Your task to perform on an android device: Open the stopwatch Image 0: 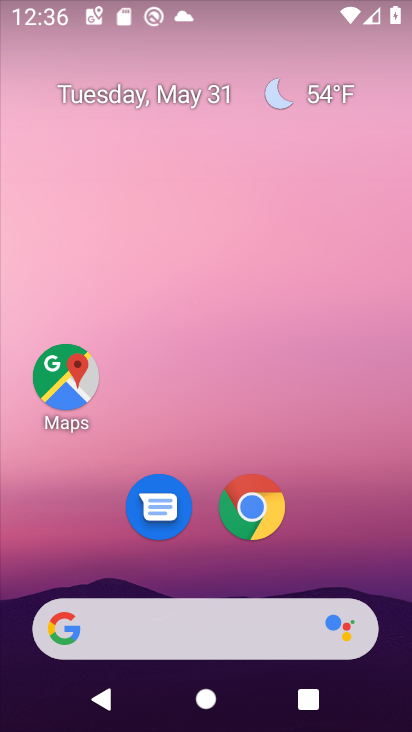
Step 0: drag from (247, 722) to (227, 407)
Your task to perform on an android device: Open the stopwatch Image 1: 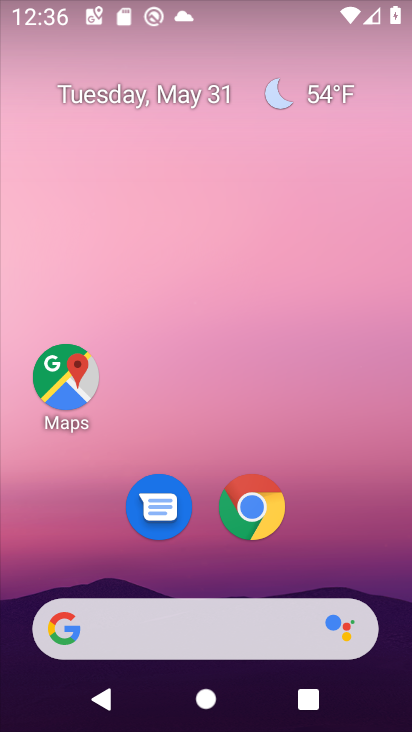
Step 1: drag from (269, 699) to (262, 294)
Your task to perform on an android device: Open the stopwatch Image 2: 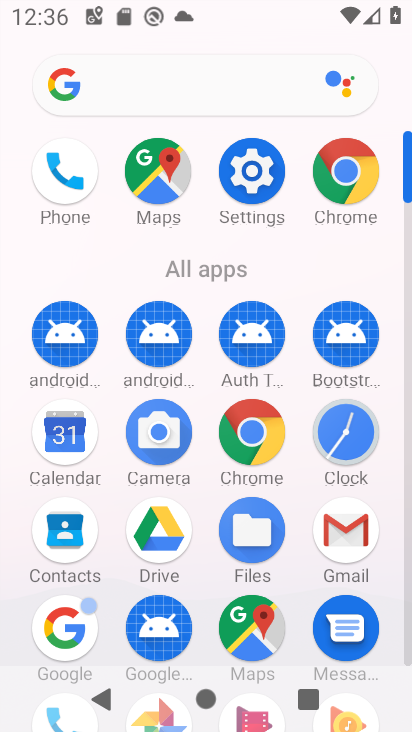
Step 2: click (342, 427)
Your task to perform on an android device: Open the stopwatch Image 3: 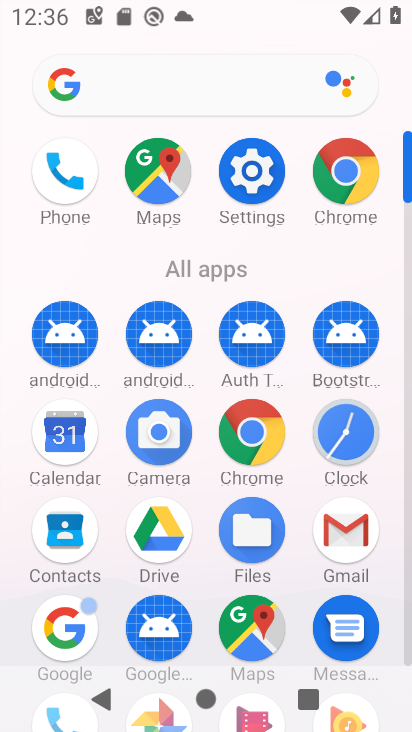
Step 3: click (344, 426)
Your task to perform on an android device: Open the stopwatch Image 4: 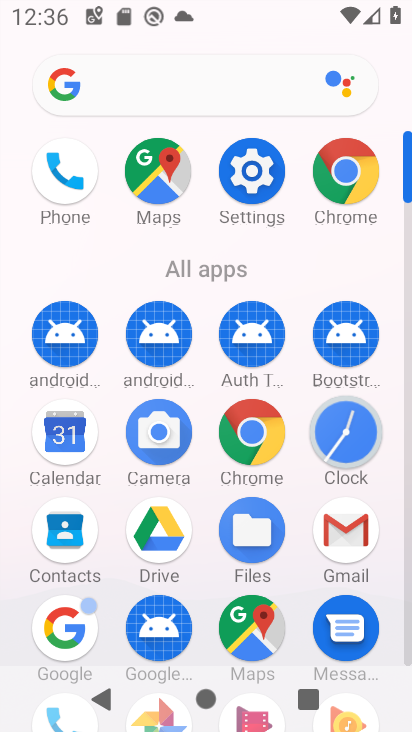
Step 4: click (344, 426)
Your task to perform on an android device: Open the stopwatch Image 5: 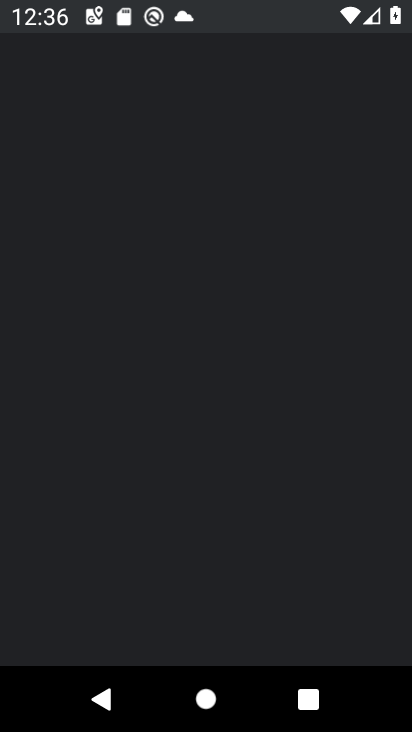
Step 5: click (333, 418)
Your task to perform on an android device: Open the stopwatch Image 6: 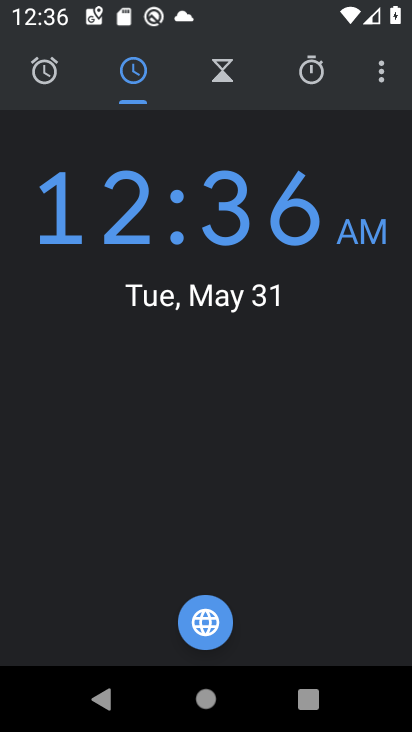
Step 6: click (311, 74)
Your task to perform on an android device: Open the stopwatch Image 7: 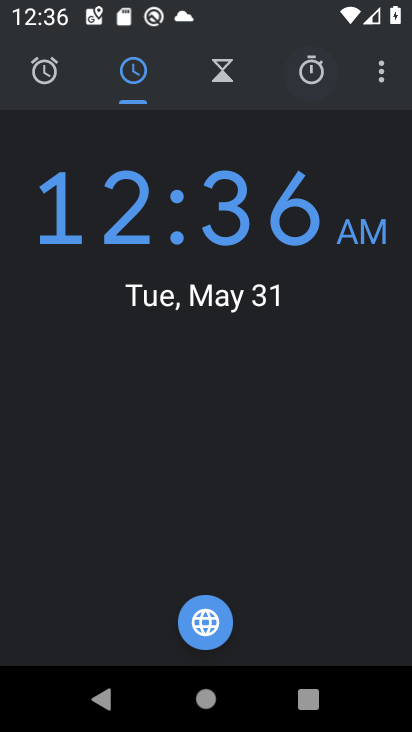
Step 7: click (312, 87)
Your task to perform on an android device: Open the stopwatch Image 8: 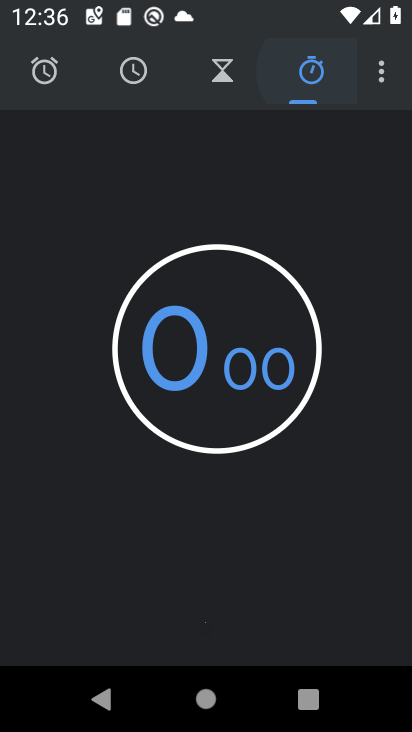
Step 8: click (309, 100)
Your task to perform on an android device: Open the stopwatch Image 9: 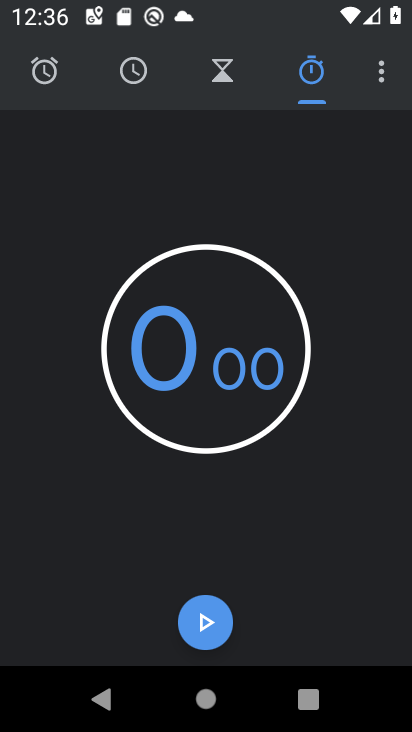
Step 9: click (202, 623)
Your task to perform on an android device: Open the stopwatch Image 10: 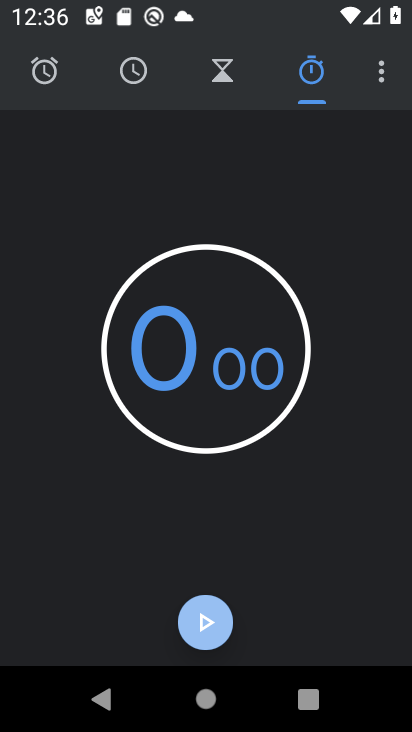
Step 10: click (211, 618)
Your task to perform on an android device: Open the stopwatch Image 11: 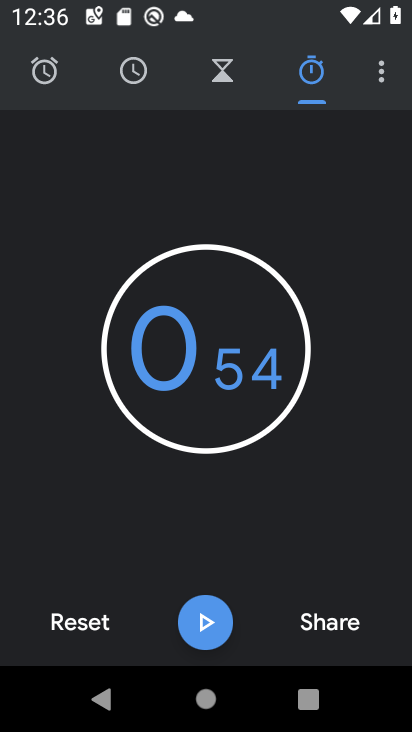
Step 11: click (203, 616)
Your task to perform on an android device: Open the stopwatch Image 12: 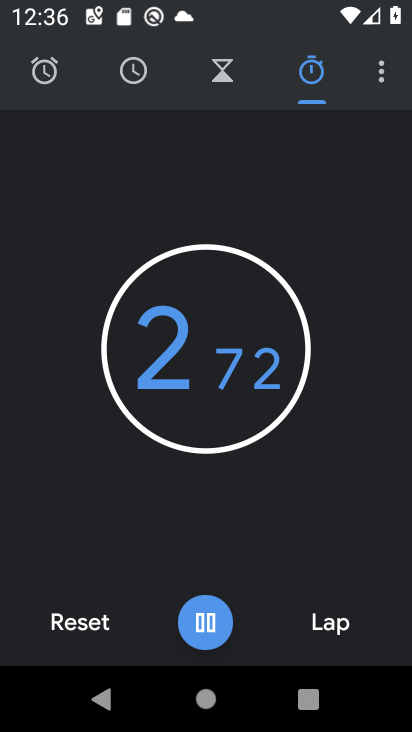
Step 12: click (215, 637)
Your task to perform on an android device: Open the stopwatch Image 13: 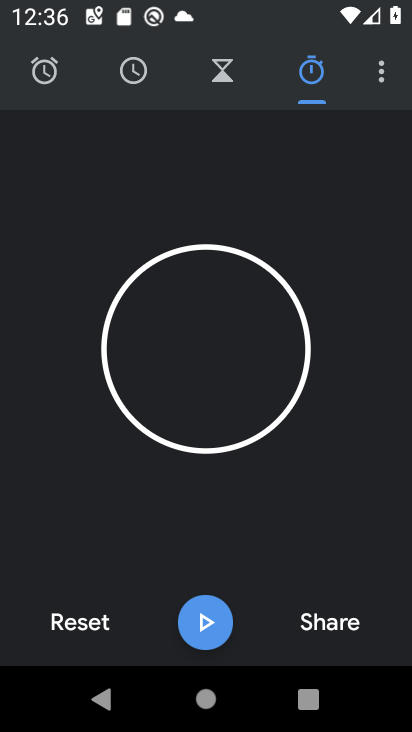
Step 13: click (202, 614)
Your task to perform on an android device: Open the stopwatch Image 14: 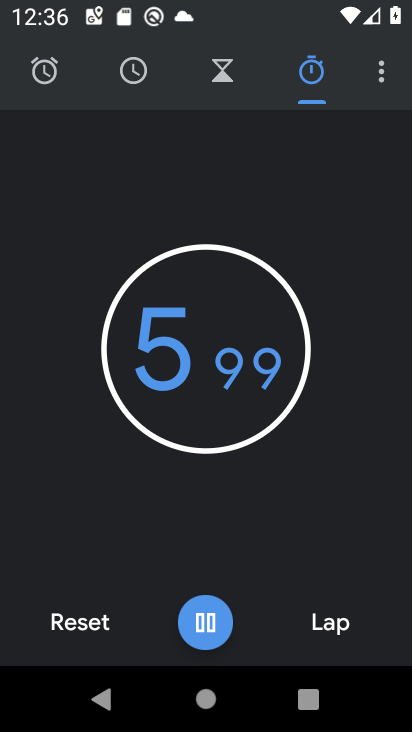
Step 14: click (207, 615)
Your task to perform on an android device: Open the stopwatch Image 15: 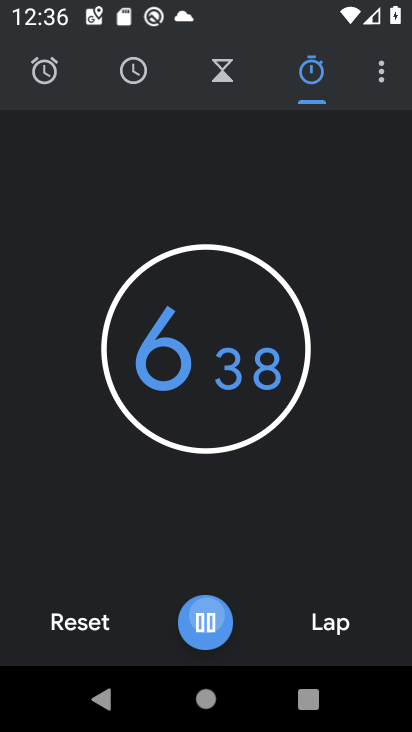
Step 15: click (207, 615)
Your task to perform on an android device: Open the stopwatch Image 16: 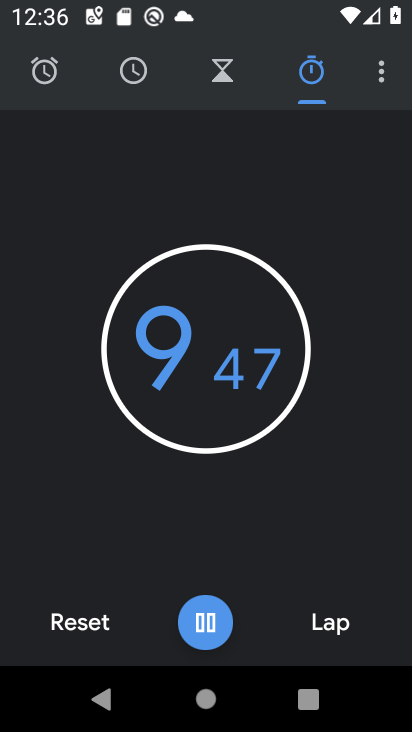
Step 16: click (201, 628)
Your task to perform on an android device: Open the stopwatch Image 17: 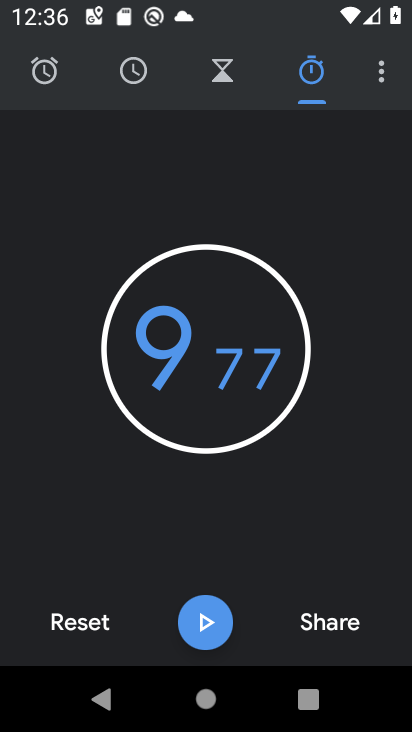
Step 17: click (210, 621)
Your task to perform on an android device: Open the stopwatch Image 18: 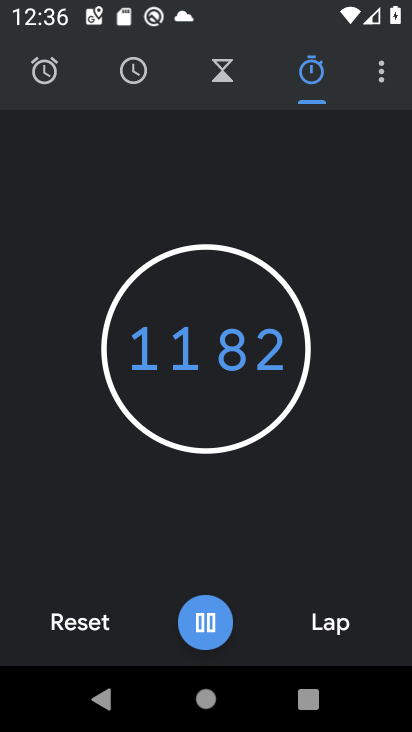
Step 18: click (210, 620)
Your task to perform on an android device: Open the stopwatch Image 19: 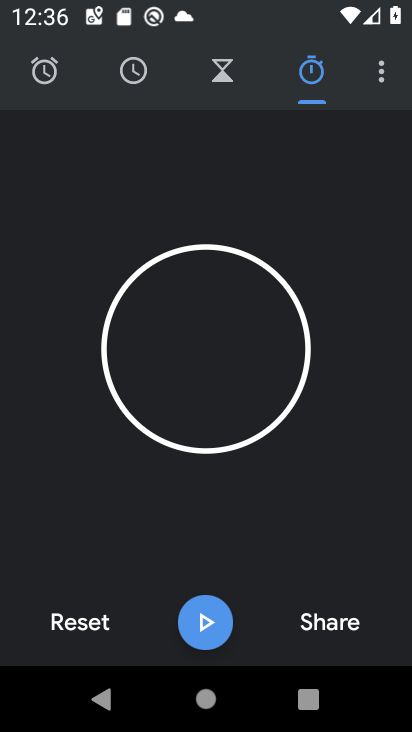
Step 19: task complete